Your task to perform on an android device: open chrome privacy settings Image 0: 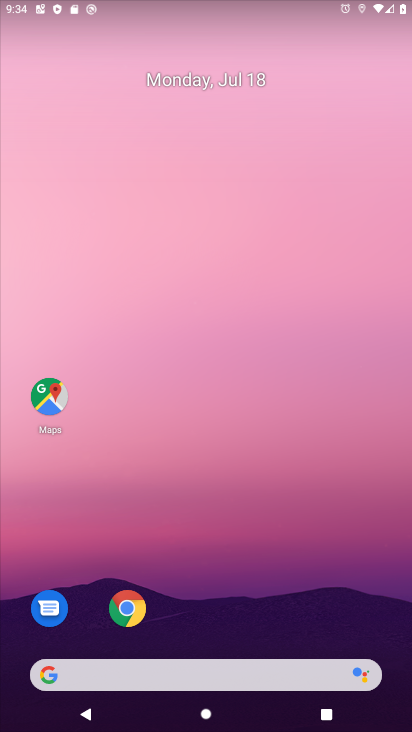
Step 0: click (110, 617)
Your task to perform on an android device: open chrome privacy settings Image 1: 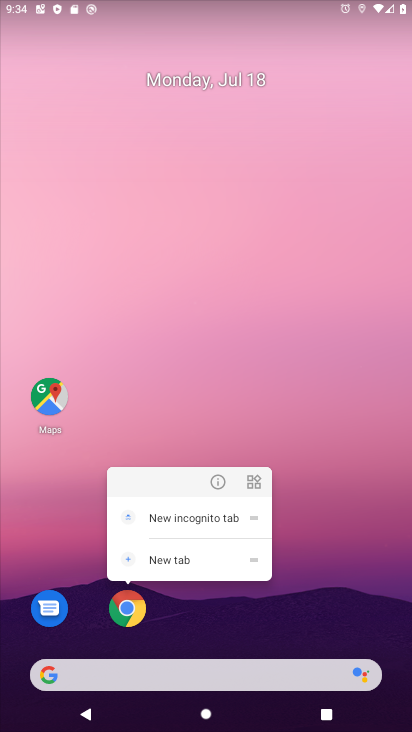
Step 1: click (113, 616)
Your task to perform on an android device: open chrome privacy settings Image 2: 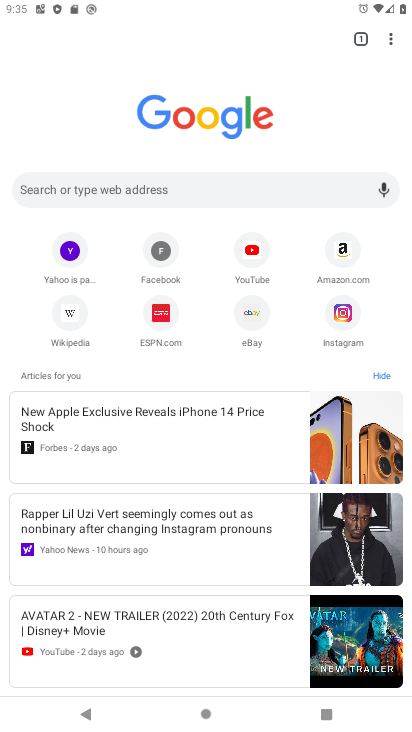
Step 2: click (390, 37)
Your task to perform on an android device: open chrome privacy settings Image 3: 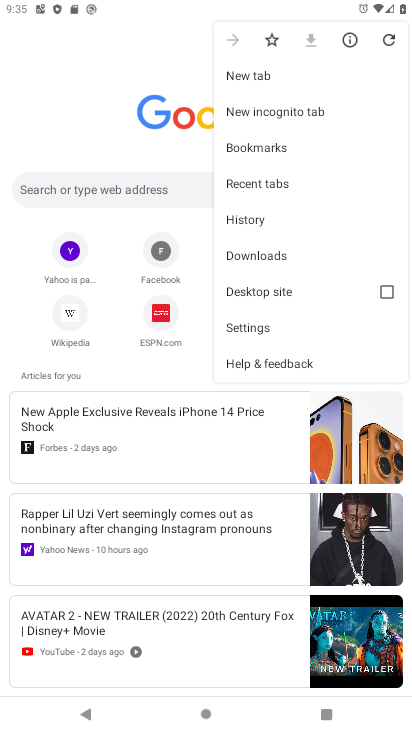
Step 3: click (238, 330)
Your task to perform on an android device: open chrome privacy settings Image 4: 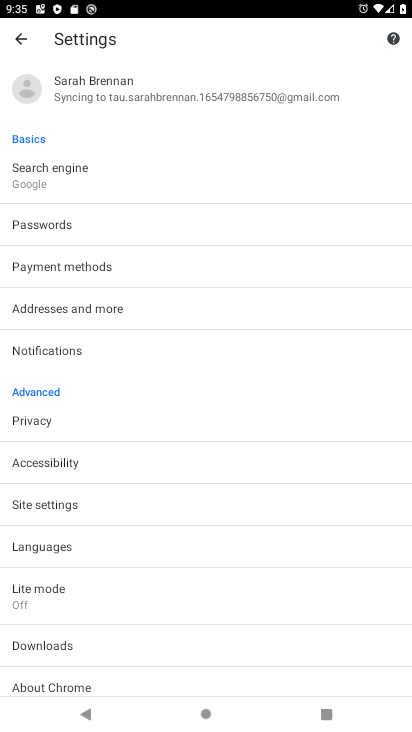
Step 4: click (21, 418)
Your task to perform on an android device: open chrome privacy settings Image 5: 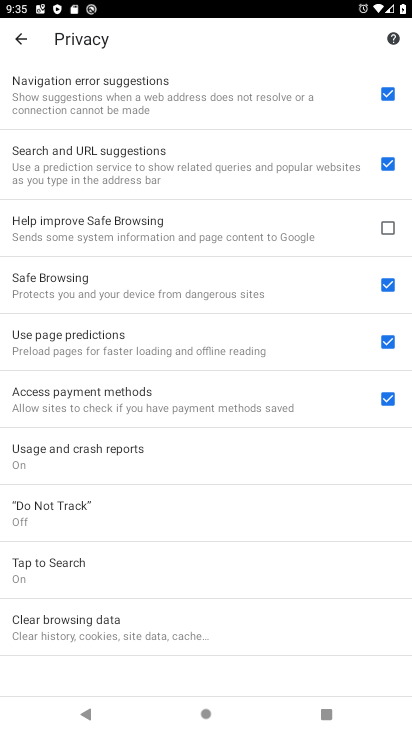
Step 5: task complete